Your task to perform on an android device: snooze an email in the gmail app Image 0: 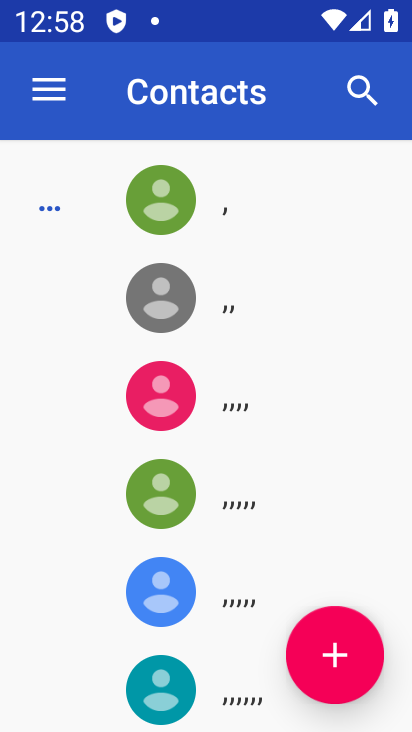
Step 0: press home button
Your task to perform on an android device: snooze an email in the gmail app Image 1: 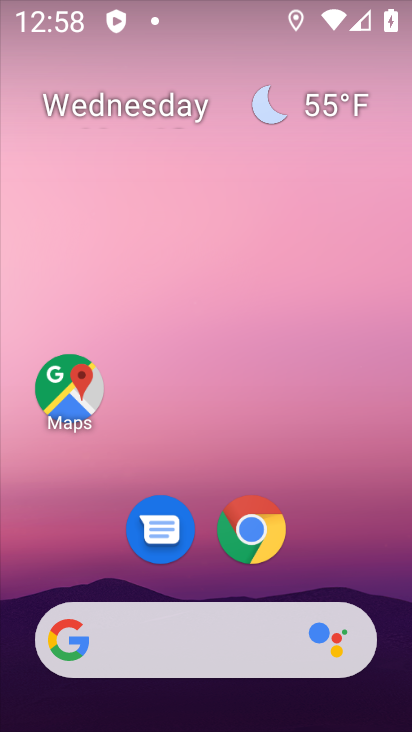
Step 1: drag from (223, 721) to (218, 87)
Your task to perform on an android device: snooze an email in the gmail app Image 2: 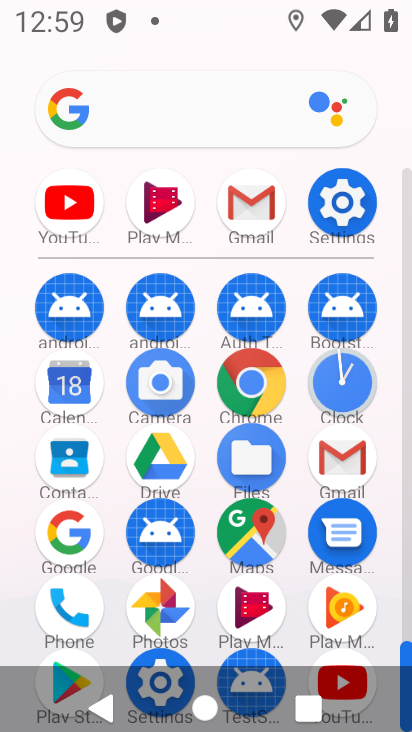
Step 2: click (344, 457)
Your task to perform on an android device: snooze an email in the gmail app Image 3: 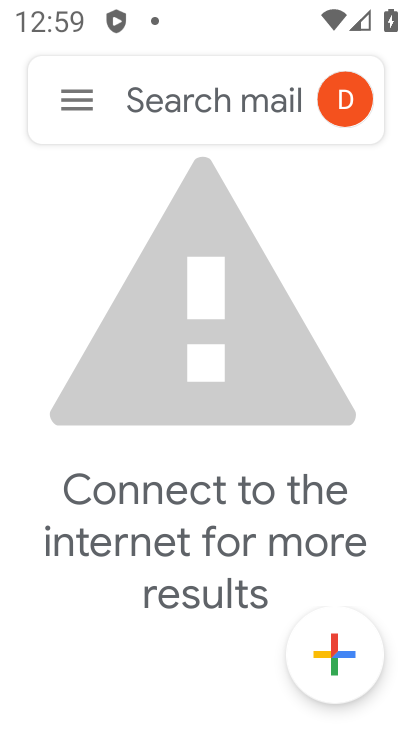
Step 3: click (75, 97)
Your task to perform on an android device: snooze an email in the gmail app Image 4: 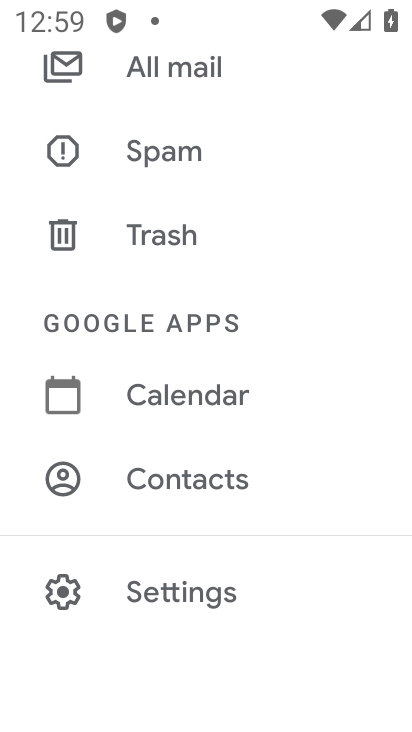
Step 4: drag from (197, 109) to (195, 570)
Your task to perform on an android device: snooze an email in the gmail app Image 5: 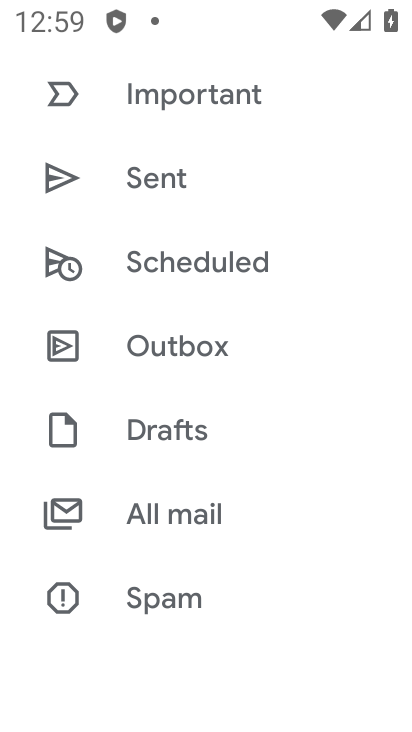
Step 5: drag from (264, 141) to (264, 582)
Your task to perform on an android device: snooze an email in the gmail app Image 6: 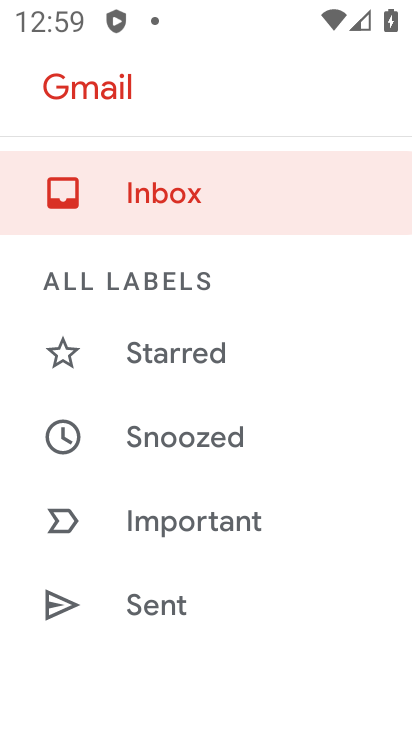
Step 6: drag from (254, 181) to (253, 643)
Your task to perform on an android device: snooze an email in the gmail app Image 7: 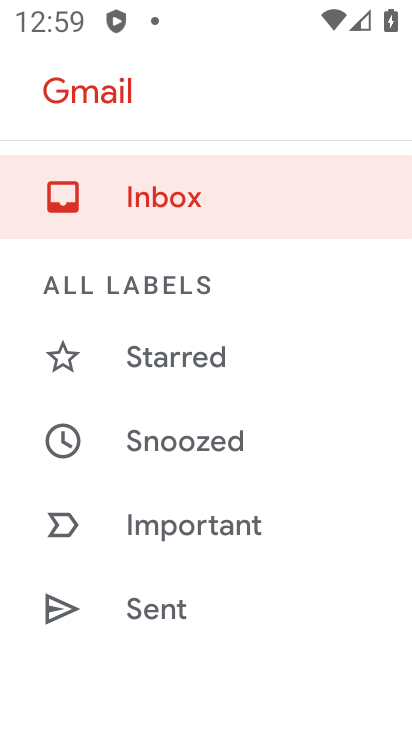
Step 7: click (177, 203)
Your task to perform on an android device: snooze an email in the gmail app Image 8: 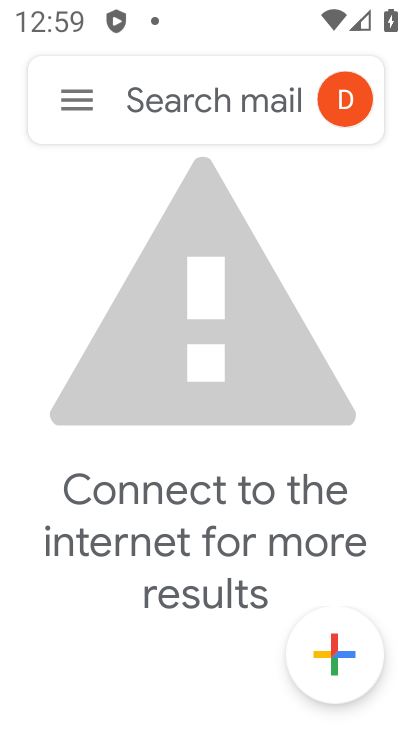
Step 8: task complete